Your task to perform on an android device: toggle data saver in the chrome app Image 0: 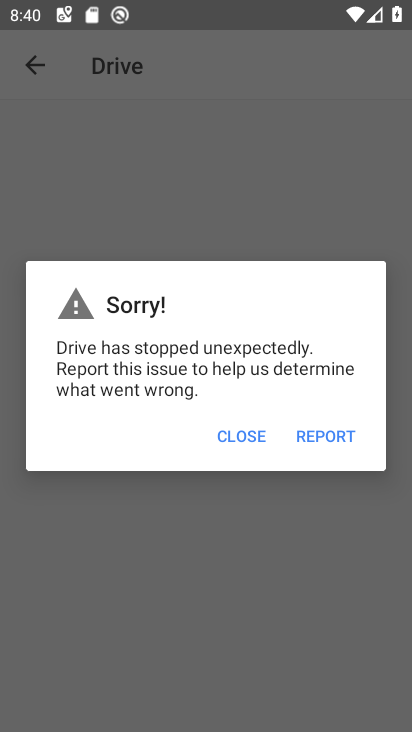
Step 0: press home button
Your task to perform on an android device: toggle data saver in the chrome app Image 1: 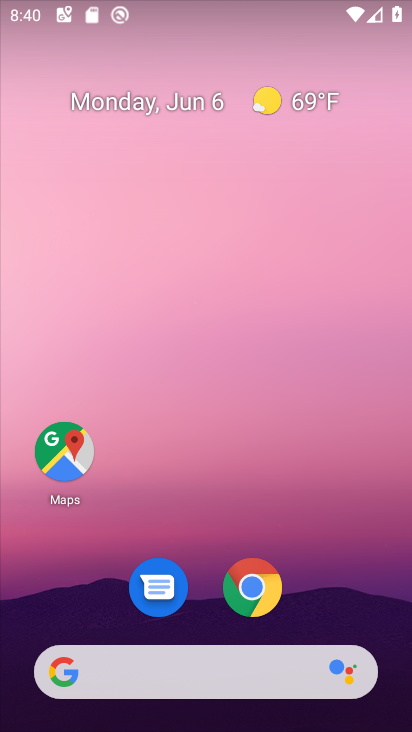
Step 1: drag from (354, 595) to (355, 204)
Your task to perform on an android device: toggle data saver in the chrome app Image 2: 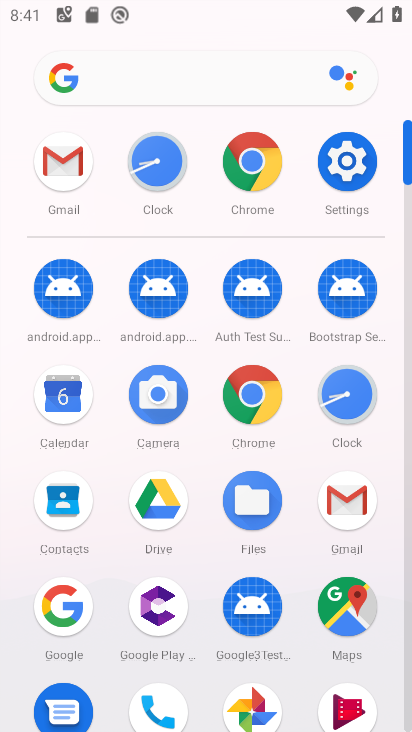
Step 2: click (255, 410)
Your task to perform on an android device: toggle data saver in the chrome app Image 3: 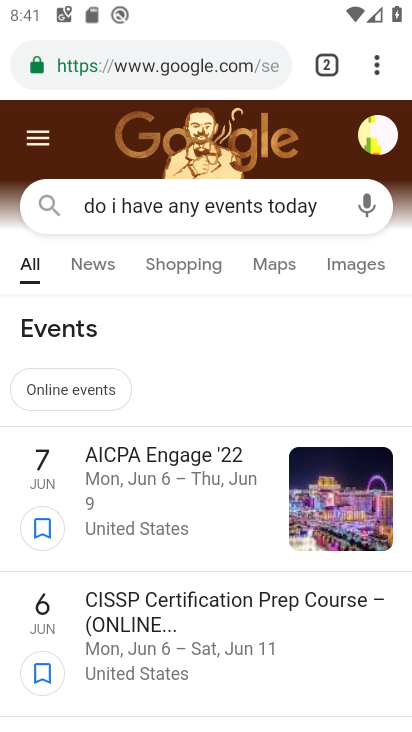
Step 3: drag from (376, 65) to (205, 639)
Your task to perform on an android device: toggle data saver in the chrome app Image 4: 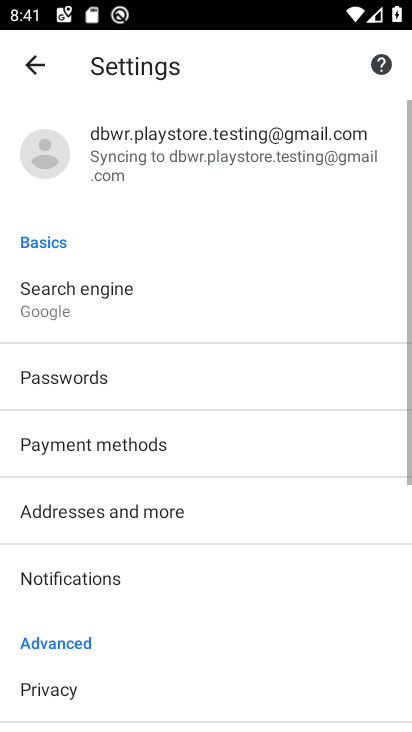
Step 4: drag from (203, 666) to (260, 342)
Your task to perform on an android device: toggle data saver in the chrome app Image 5: 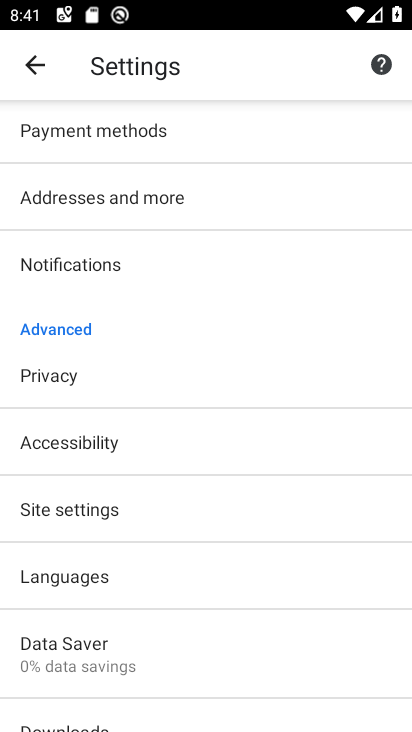
Step 5: click (177, 654)
Your task to perform on an android device: toggle data saver in the chrome app Image 6: 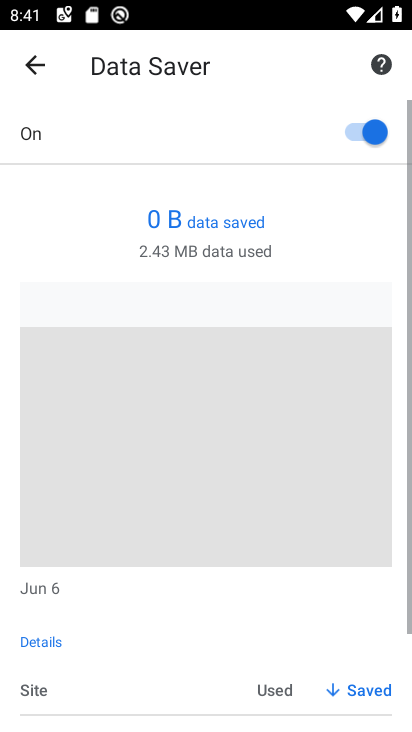
Step 6: click (351, 128)
Your task to perform on an android device: toggle data saver in the chrome app Image 7: 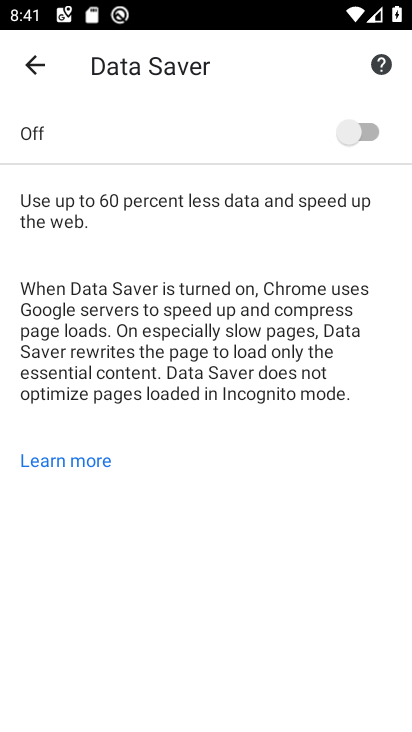
Step 7: task complete